Your task to perform on an android device: Open calendar and show me the first week of next month Image 0: 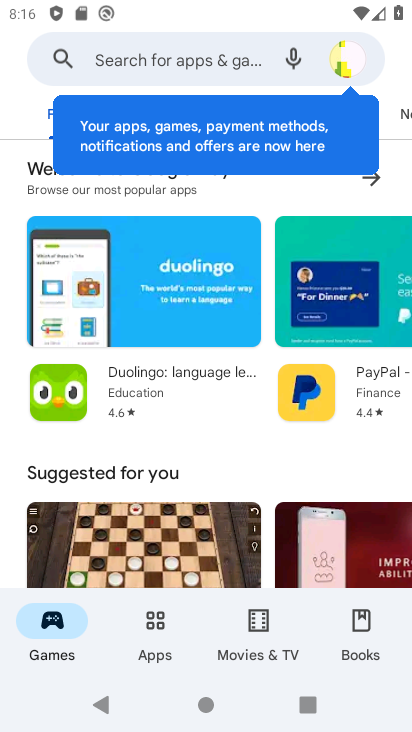
Step 0: press back button
Your task to perform on an android device: Open calendar and show me the first week of next month Image 1: 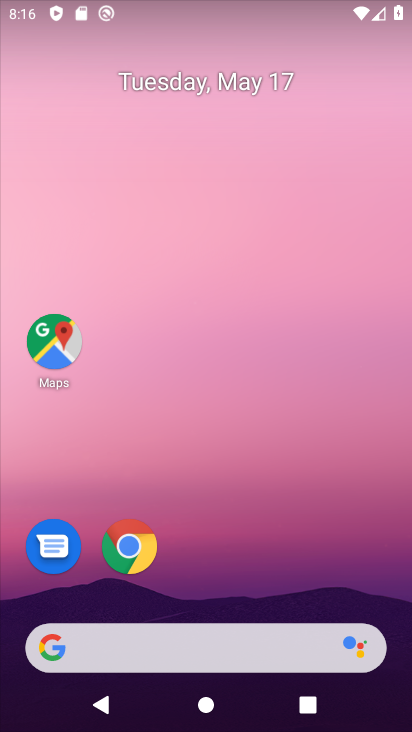
Step 1: drag from (295, 602) to (136, 99)
Your task to perform on an android device: Open calendar and show me the first week of next month Image 2: 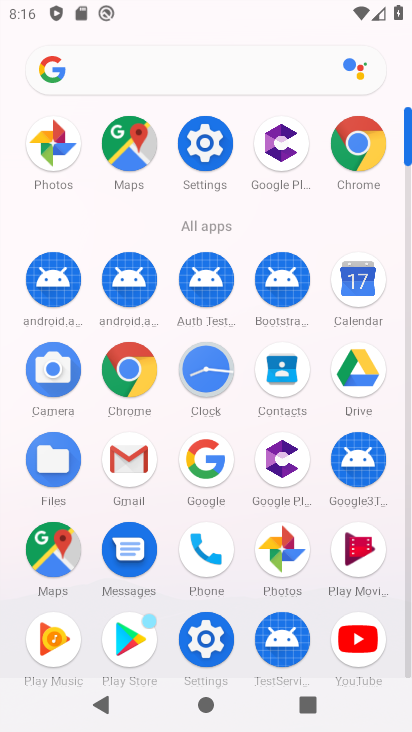
Step 2: click (348, 286)
Your task to perform on an android device: Open calendar and show me the first week of next month Image 3: 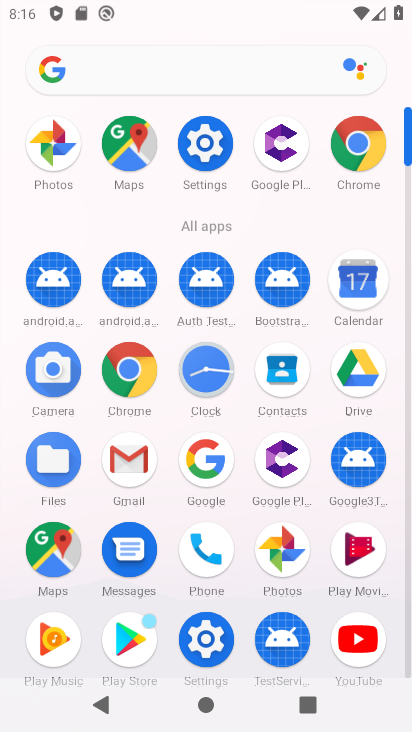
Step 3: click (350, 285)
Your task to perform on an android device: Open calendar and show me the first week of next month Image 4: 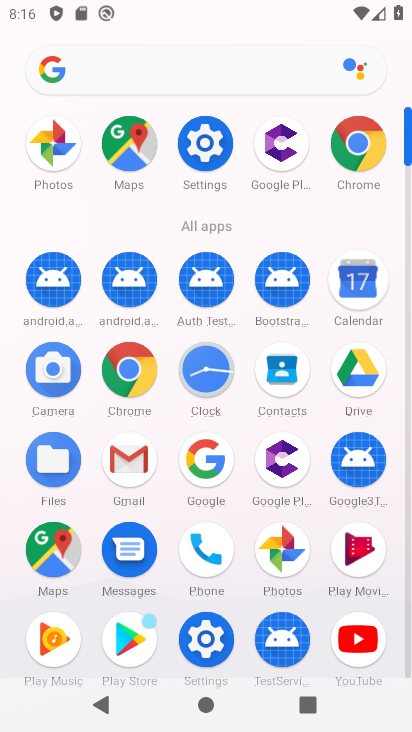
Step 4: click (350, 285)
Your task to perform on an android device: Open calendar and show me the first week of next month Image 5: 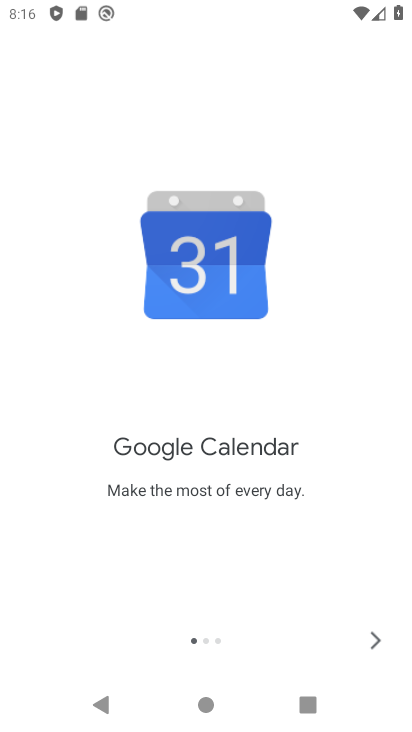
Step 5: click (376, 639)
Your task to perform on an android device: Open calendar and show me the first week of next month Image 6: 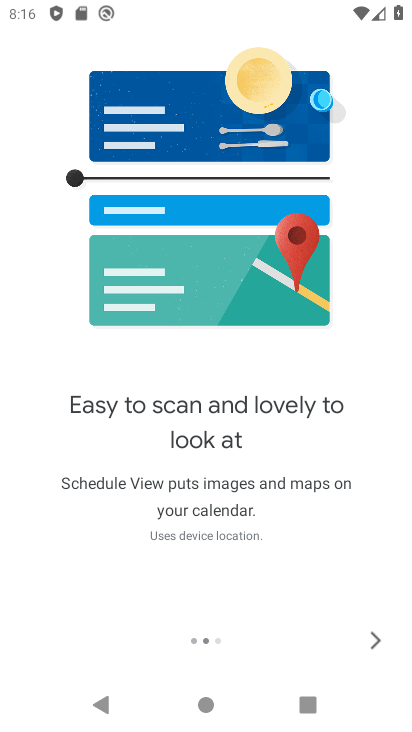
Step 6: click (376, 638)
Your task to perform on an android device: Open calendar and show me the first week of next month Image 7: 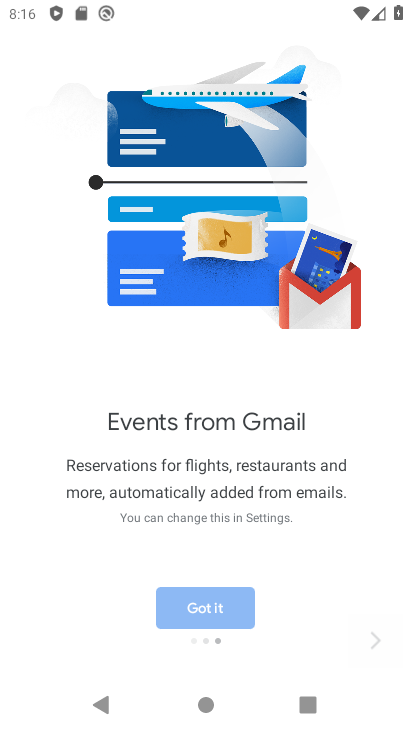
Step 7: click (376, 638)
Your task to perform on an android device: Open calendar and show me the first week of next month Image 8: 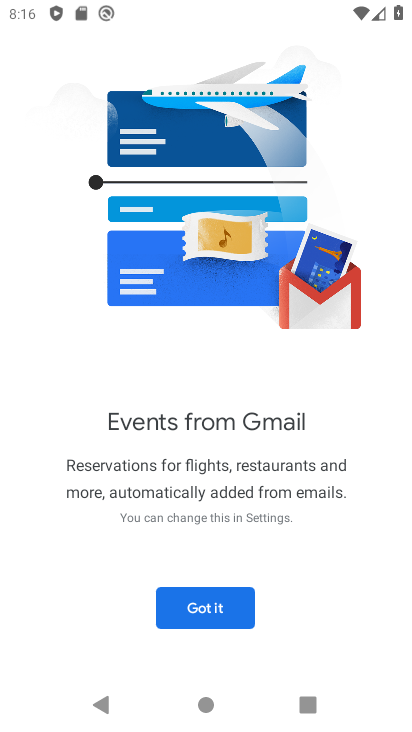
Step 8: click (376, 638)
Your task to perform on an android device: Open calendar and show me the first week of next month Image 9: 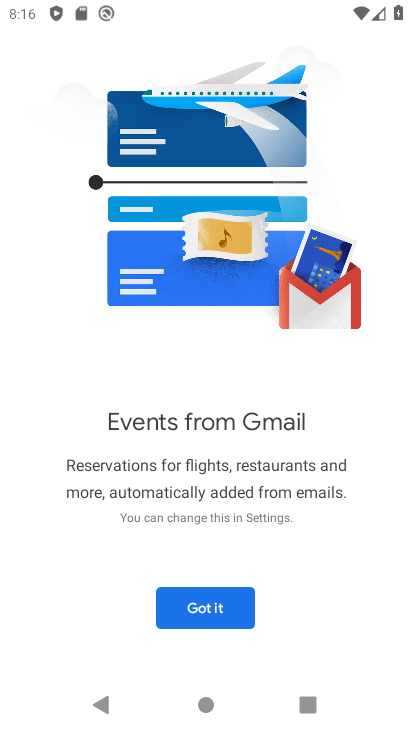
Step 9: click (376, 638)
Your task to perform on an android device: Open calendar and show me the first week of next month Image 10: 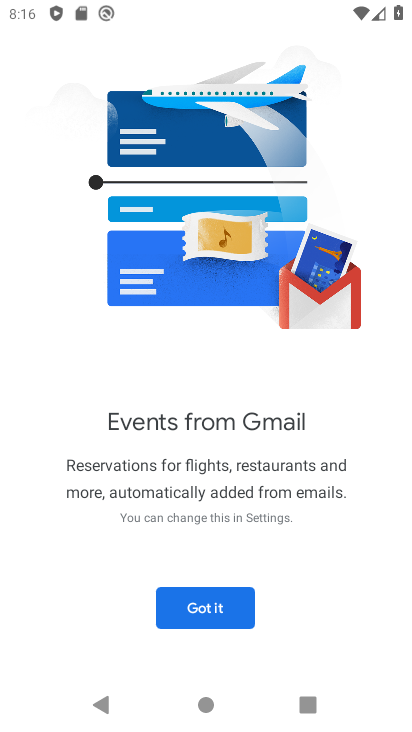
Step 10: click (209, 611)
Your task to perform on an android device: Open calendar and show me the first week of next month Image 11: 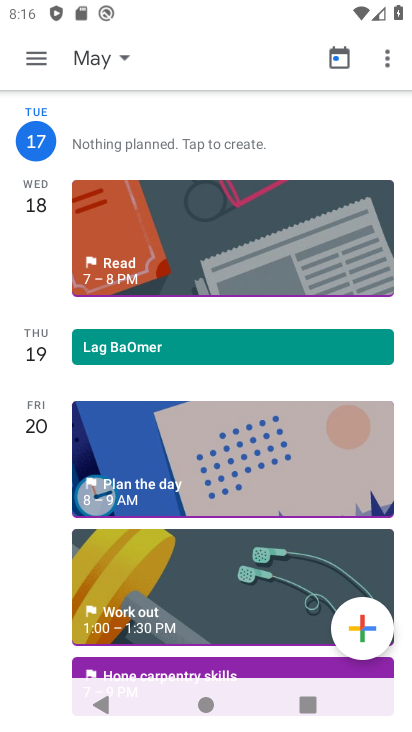
Step 11: click (120, 64)
Your task to perform on an android device: Open calendar and show me the first week of next month Image 12: 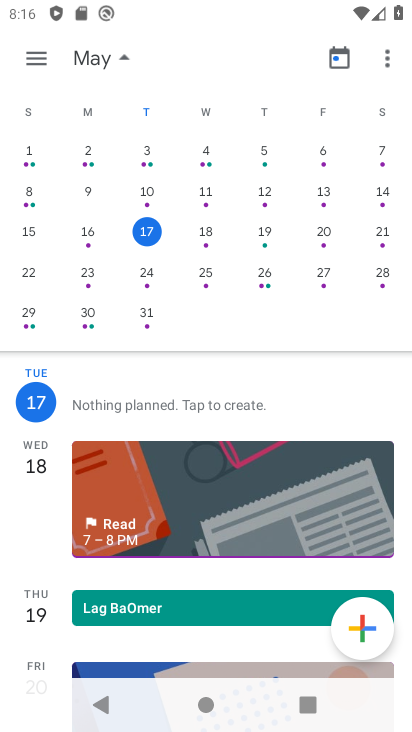
Step 12: drag from (259, 226) to (0, 211)
Your task to perform on an android device: Open calendar and show me the first week of next month Image 13: 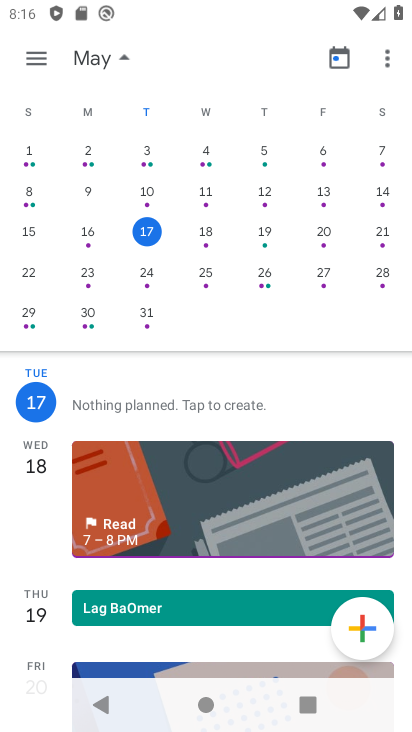
Step 13: drag from (210, 222) to (1, 278)
Your task to perform on an android device: Open calendar and show me the first week of next month Image 14: 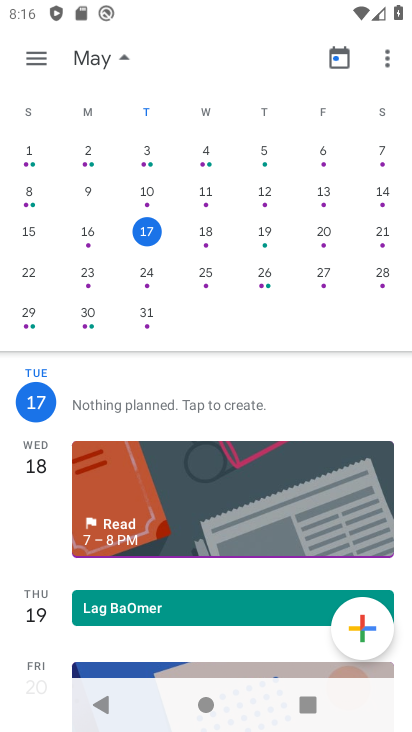
Step 14: drag from (261, 217) to (9, 272)
Your task to perform on an android device: Open calendar and show me the first week of next month Image 15: 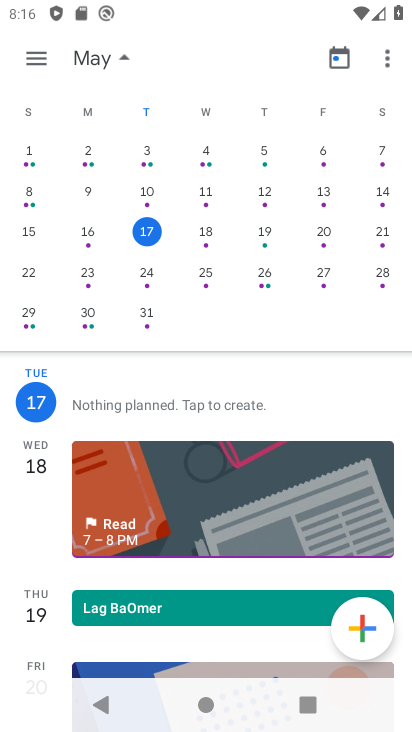
Step 15: drag from (24, 301) to (38, 198)
Your task to perform on an android device: Open calendar and show me the first week of next month Image 16: 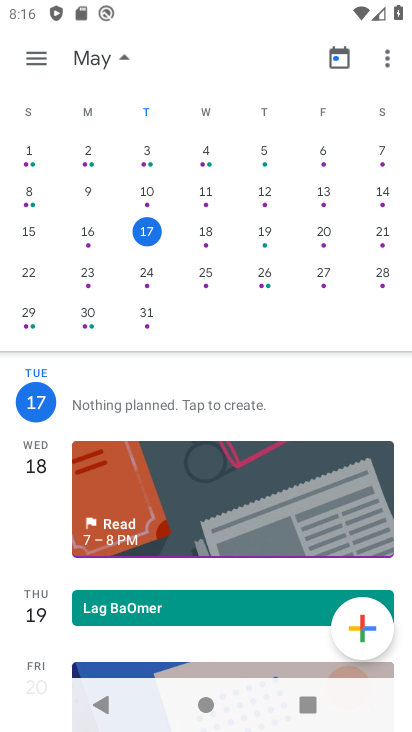
Step 16: drag from (305, 217) to (3, 285)
Your task to perform on an android device: Open calendar and show me the first week of next month Image 17: 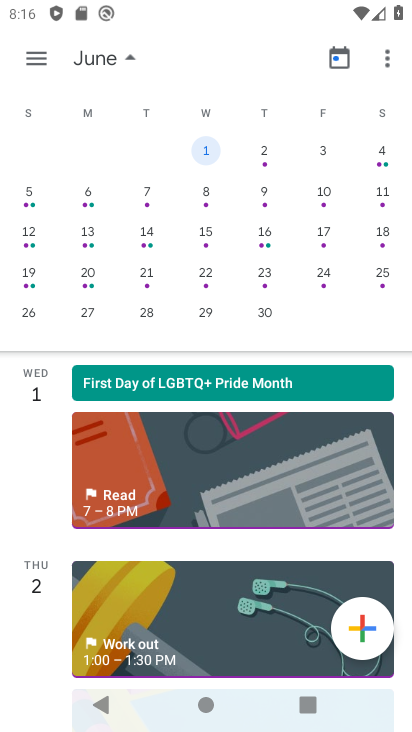
Step 17: click (269, 224)
Your task to perform on an android device: Open calendar and show me the first week of next month Image 18: 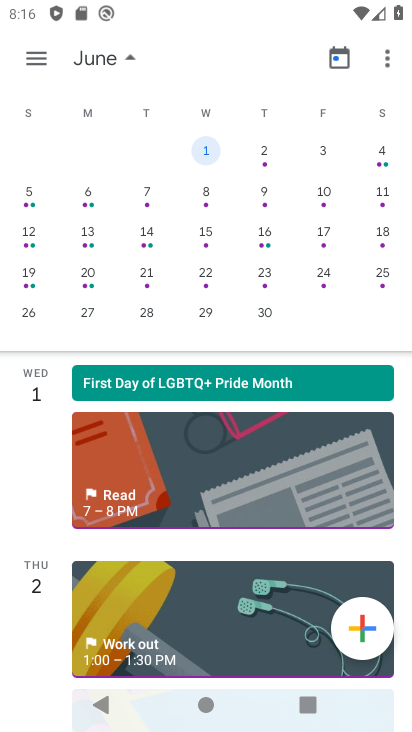
Step 18: click (210, 145)
Your task to perform on an android device: Open calendar and show me the first week of next month Image 19: 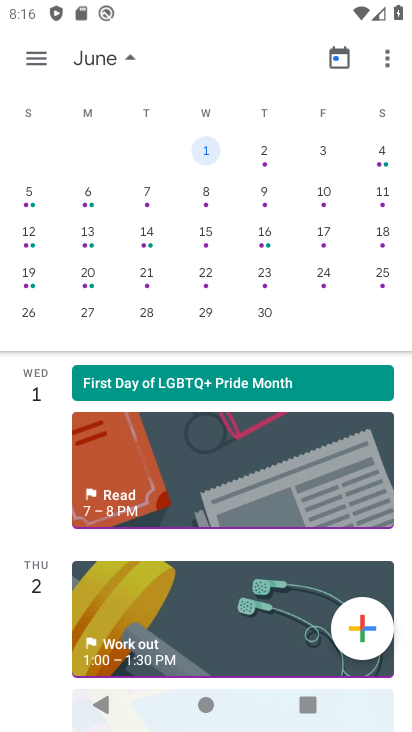
Step 19: click (207, 147)
Your task to perform on an android device: Open calendar and show me the first week of next month Image 20: 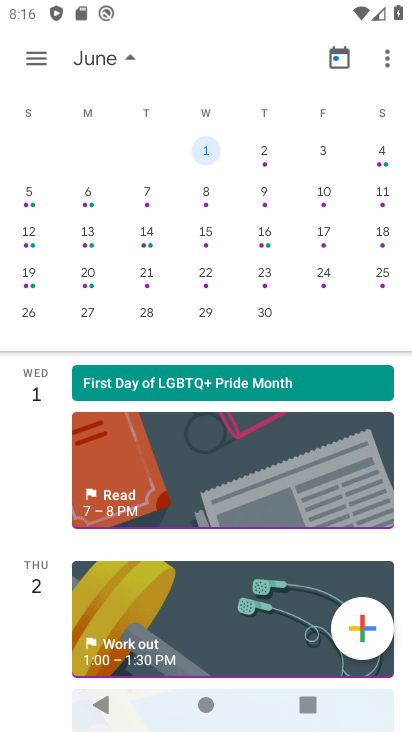
Step 20: click (208, 147)
Your task to perform on an android device: Open calendar and show me the first week of next month Image 21: 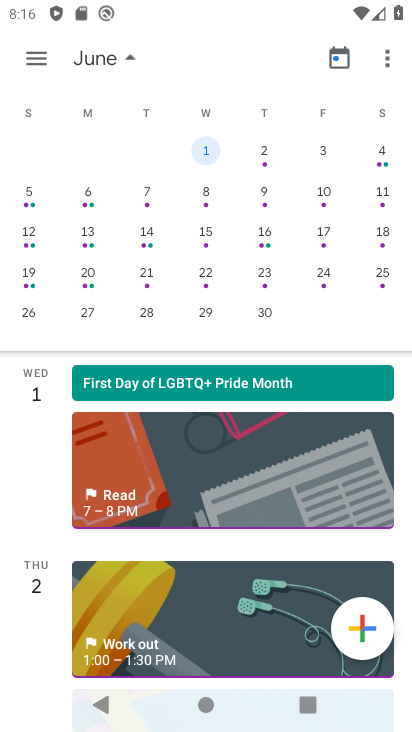
Step 21: task complete